Your task to perform on an android device: Go to internet settings Image 0: 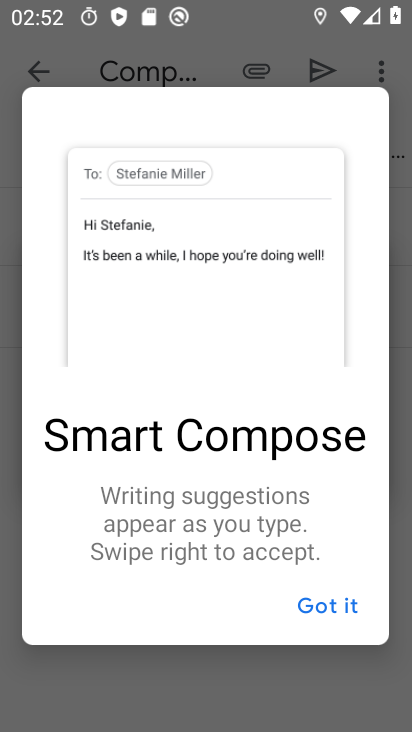
Step 0: press home button
Your task to perform on an android device: Go to internet settings Image 1: 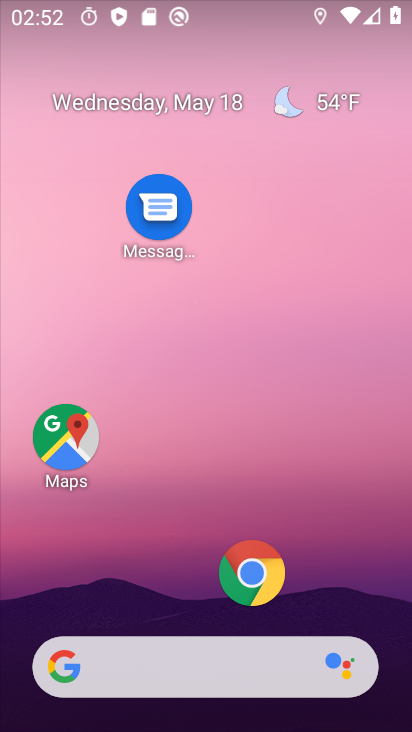
Step 1: drag from (171, 609) to (225, 234)
Your task to perform on an android device: Go to internet settings Image 2: 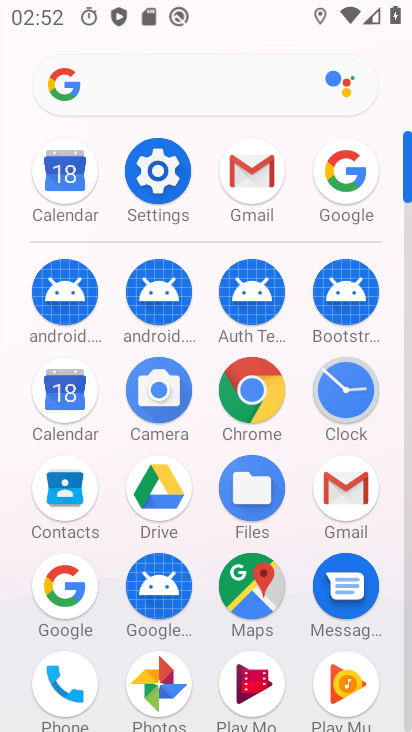
Step 2: click (164, 170)
Your task to perform on an android device: Go to internet settings Image 3: 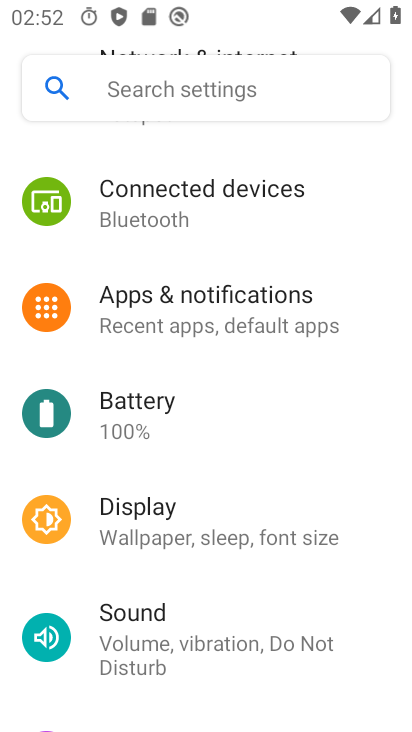
Step 3: drag from (209, 254) to (177, 597)
Your task to perform on an android device: Go to internet settings Image 4: 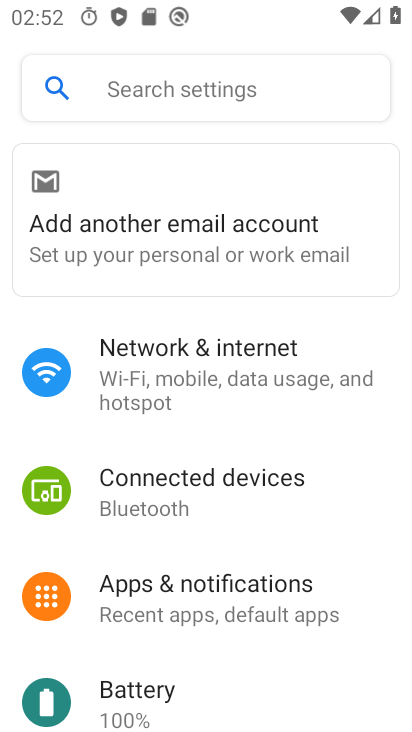
Step 4: click (179, 365)
Your task to perform on an android device: Go to internet settings Image 5: 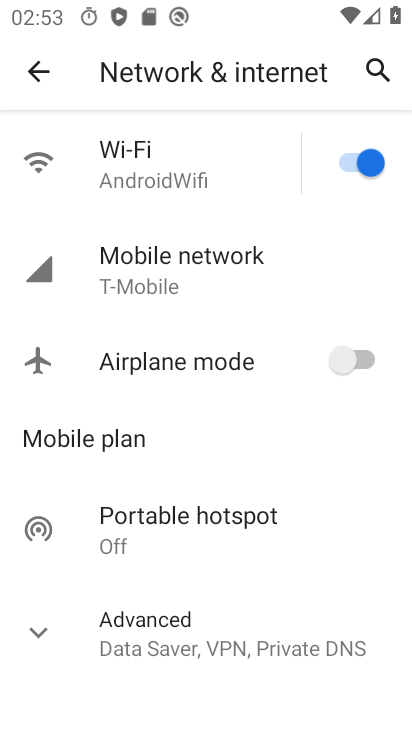
Step 5: task complete